Your task to perform on an android device: install app "Messenger Lite" Image 0: 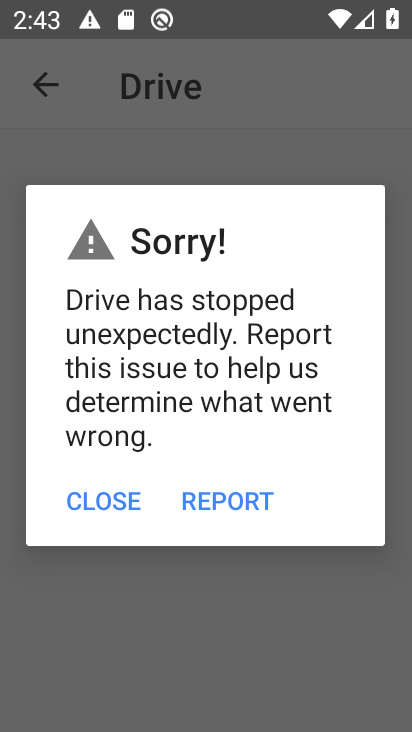
Step 0: press home button
Your task to perform on an android device: install app "Messenger Lite" Image 1: 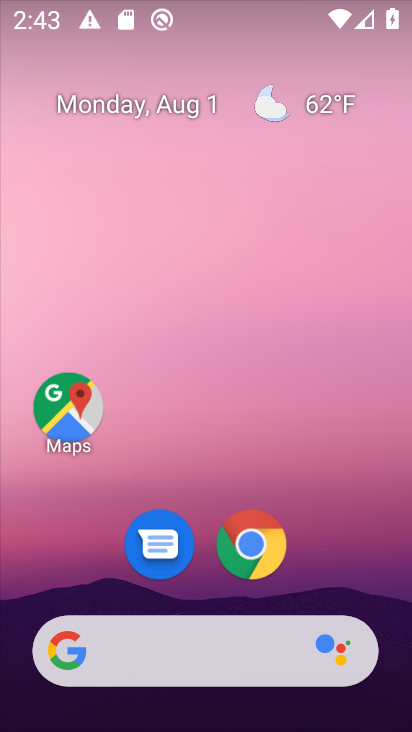
Step 1: drag from (375, 608) to (143, 42)
Your task to perform on an android device: install app "Messenger Lite" Image 2: 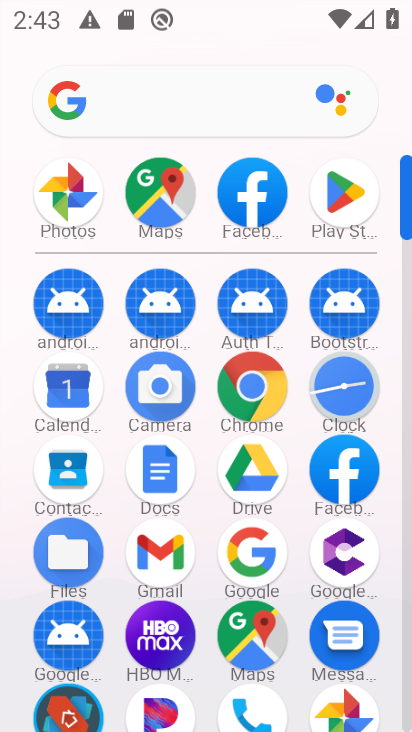
Step 2: click (362, 191)
Your task to perform on an android device: install app "Messenger Lite" Image 3: 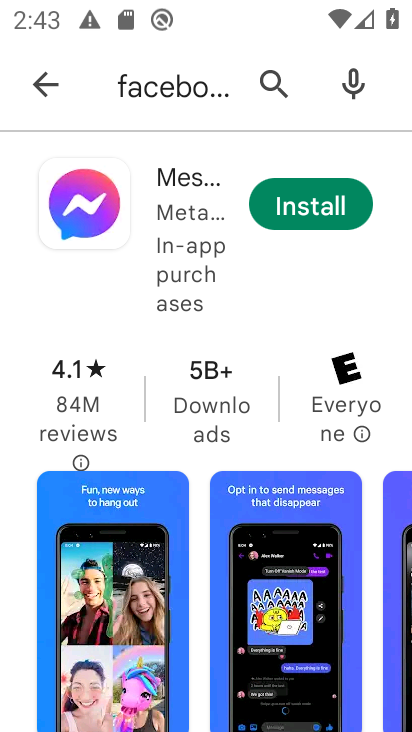
Step 3: press back button
Your task to perform on an android device: install app "Messenger Lite" Image 4: 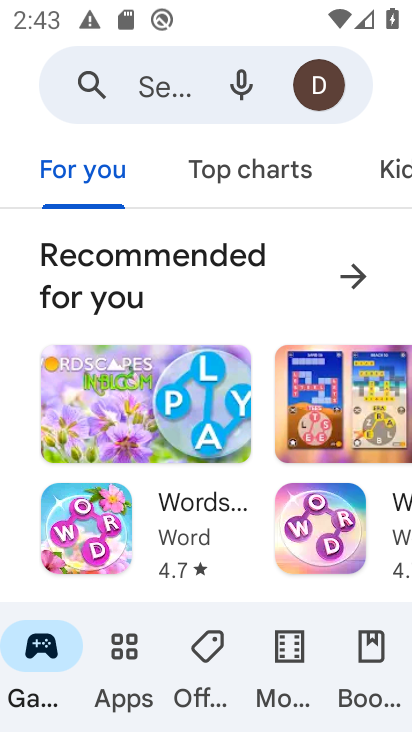
Step 4: click (127, 80)
Your task to perform on an android device: install app "Messenger Lite" Image 5: 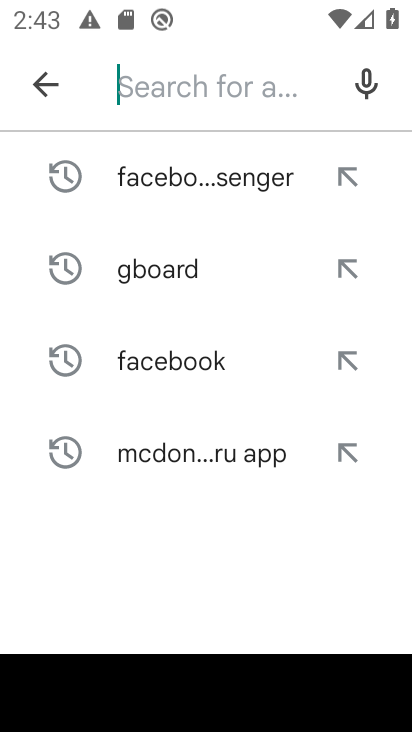
Step 5: type "Messenger Lite"
Your task to perform on an android device: install app "Messenger Lite" Image 6: 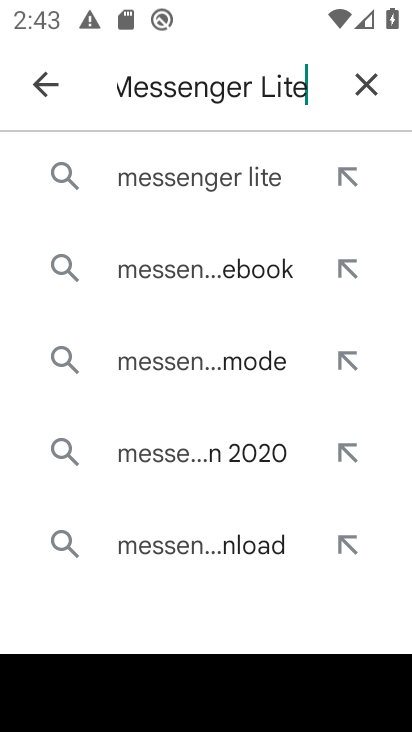
Step 6: click (150, 181)
Your task to perform on an android device: install app "Messenger Lite" Image 7: 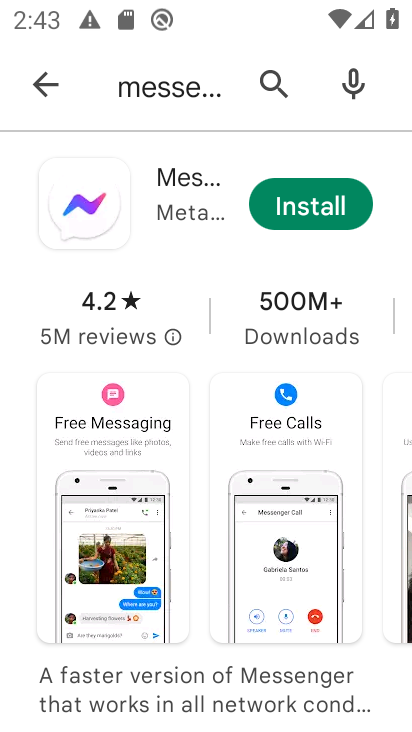
Step 7: click (316, 203)
Your task to perform on an android device: install app "Messenger Lite" Image 8: 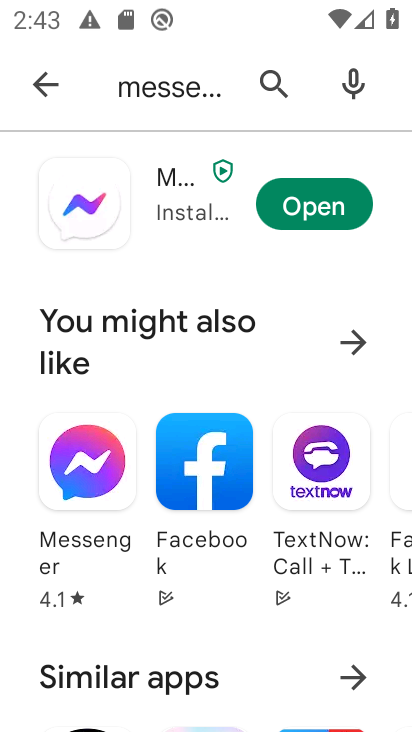
Step 8: task complete